Your task to perform on an android device: Open the phone app and click the voicemail tab. Image 0: 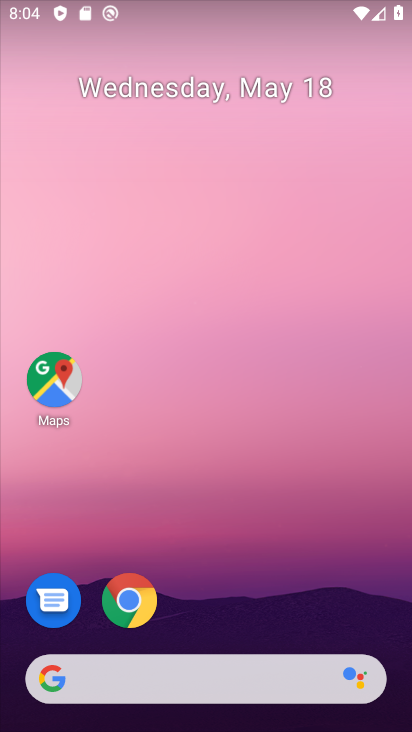
Step 0: drag from (17, 614) to (230, 237)
Your task to perform on an android device: Open the phone app and click the voicemail tab. Image 1: 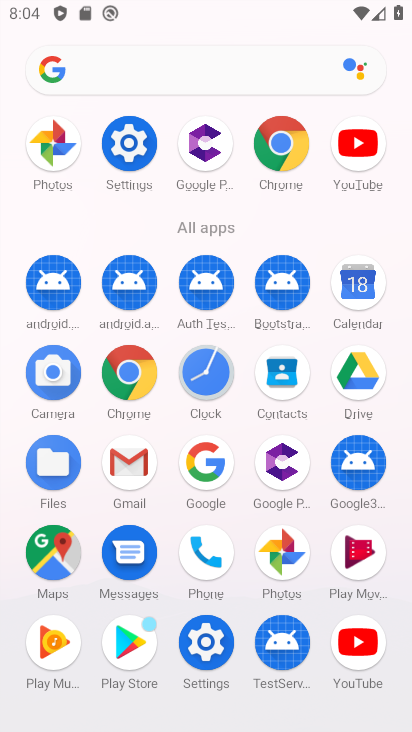
Step 1: click (216, 537)
Your task to perform on an android device: Open the phone app and click the voicemail tab. Image 2: 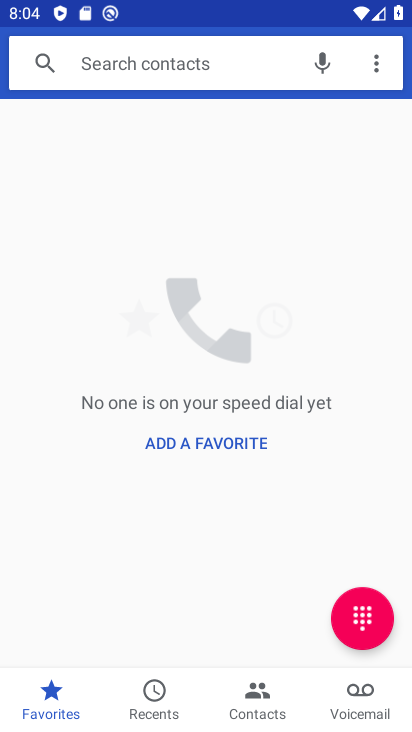
Step 2: click (356, 702)
Your task to perform on an android device: Open the phone app and click the voicemail tab. Image 3: 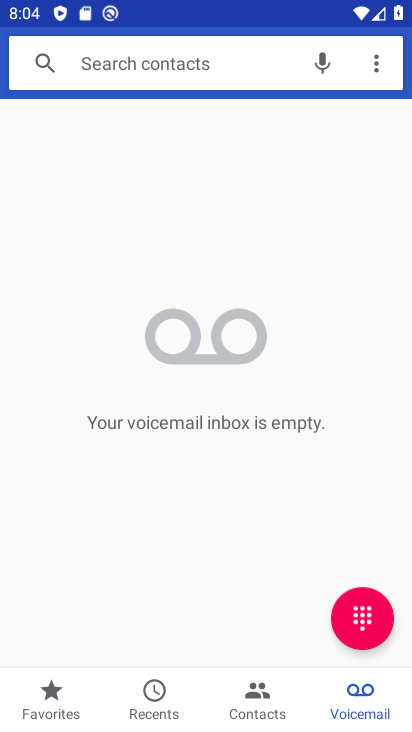
Step 3: click (391, 628)
Your task to perform on an android device: Open the phone app and click the voicemail tab. Image 4: 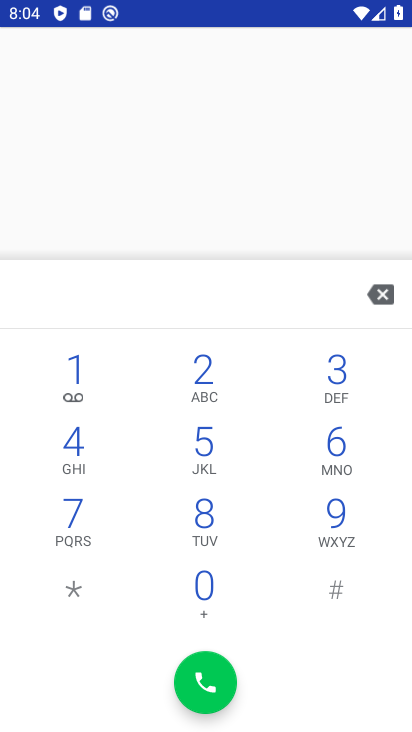
Step 4: click (195, 196)
Your task to perform on an android device: Open the phone app and click the voicemail tab. Image 5: 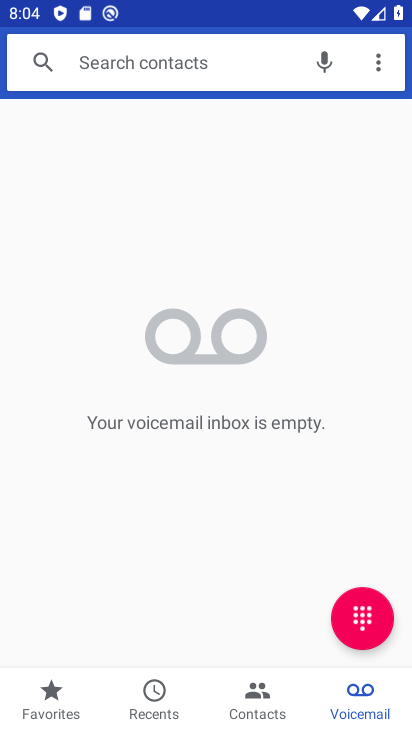
Step 5: task complete